Your task to perform on an android device: turn off translation in the chrome app Image 0: 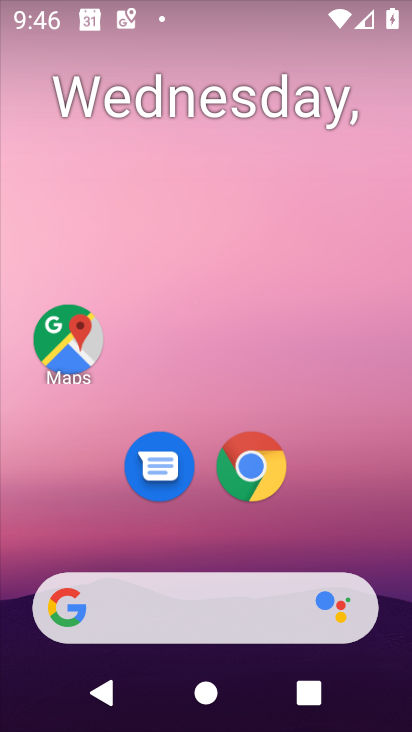
Step 0: drag from (314, 548) to (311, 267)
Your task to perform on an android device: turn off translation in the chrome app Image 1: 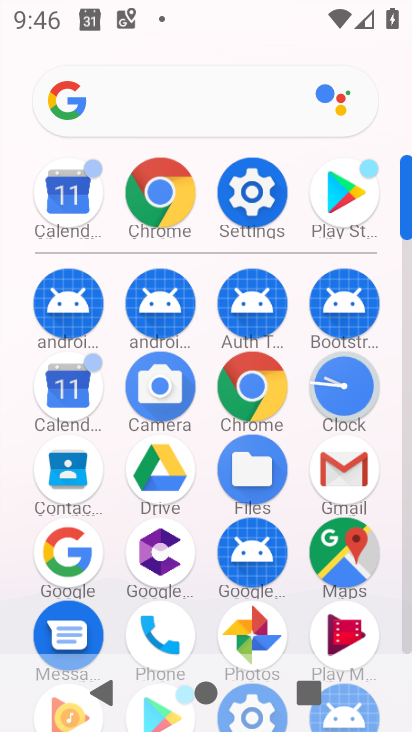
Step 1: click (141, 178)
Your task to perform on an android device: turn off translation in the chrome app Image 2: 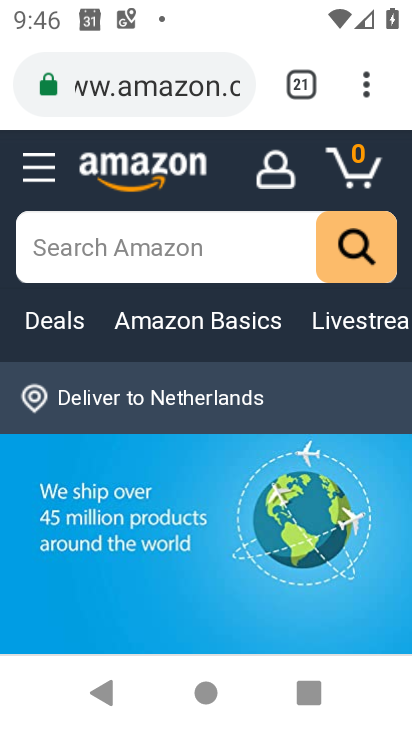
Step 2: click (329, 82)
Your task to perform on an android device: turn off translation in the chrome app Image 3: 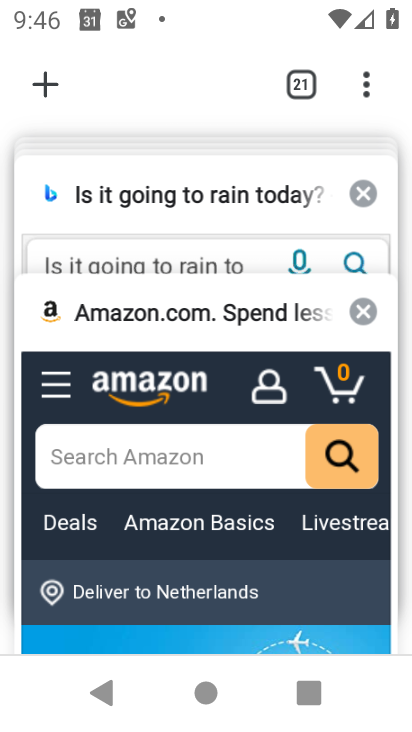
Step 3: click (351, 74)
Your task to perform on an android device: turn off translation in the chrome app Image 4: 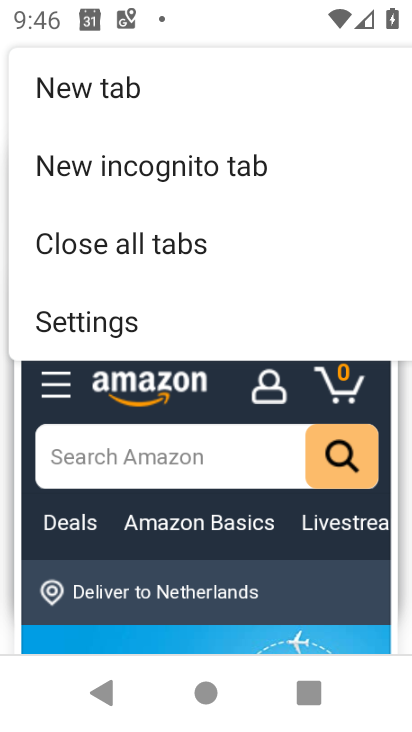
Step 4: click (136, 317)
Your task to perform on an android device: turn off translation in the chrome app Image 5: 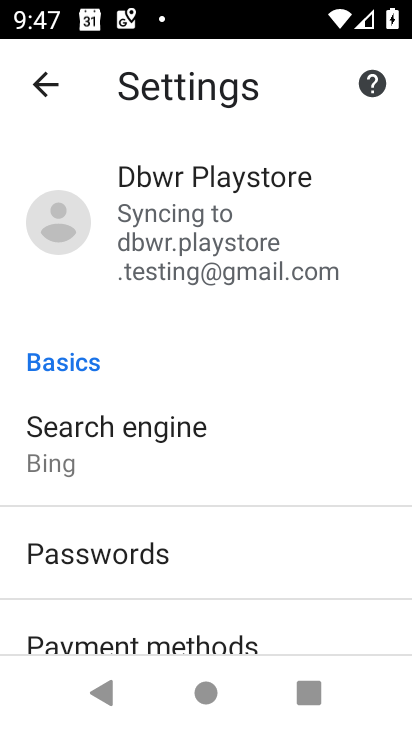
Step 5: drag from (221, 532) to (251, 201)
Your task to perform on an android device: turn off translation in the chrome app Image 6: 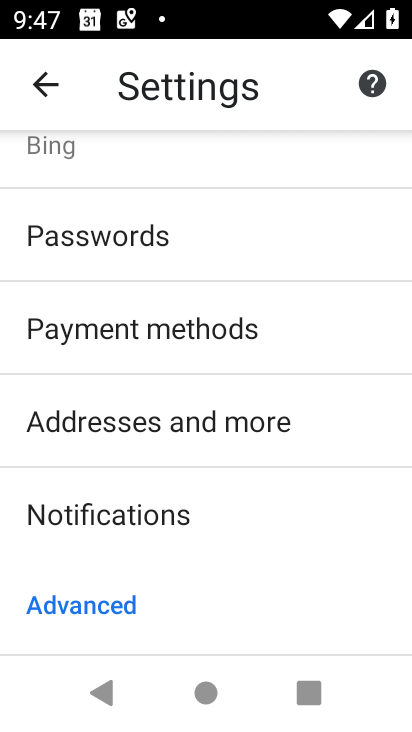
Step 6: drag from (155, 619) to (209, 222)
Your task to perform on an android device: turn off translation in the chrome app Image 7: 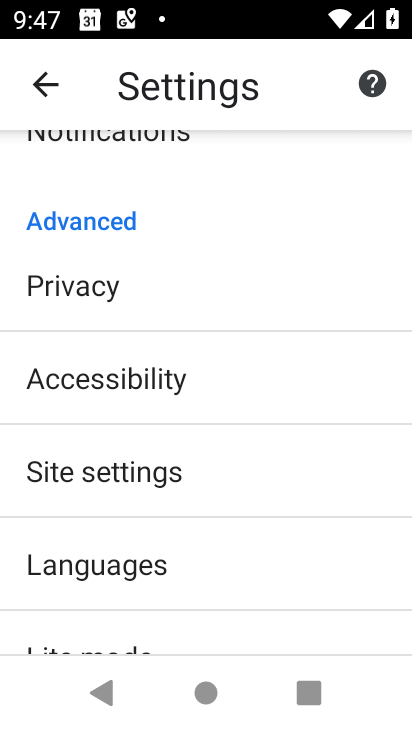
Step 7: click (148, 558)
Your task to perform on an android device: turn off translation in the chrome app Image 8: 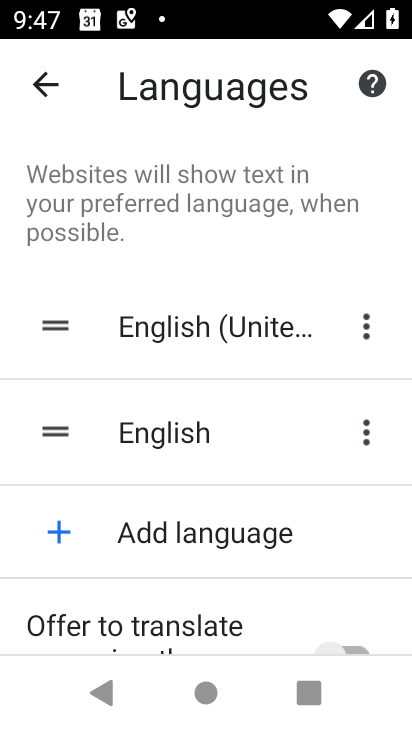
Step 8: task complete